Your task to perform on an android device: delete browsing data in the chrome app Image 0: 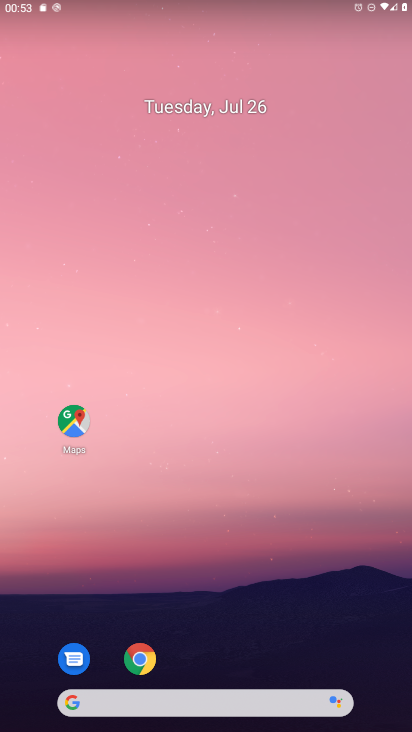
Step 0: drag from (292, 601) to (310, 259)
Your task to perform on an android device: delete browsing data in the chrome app Image 1: 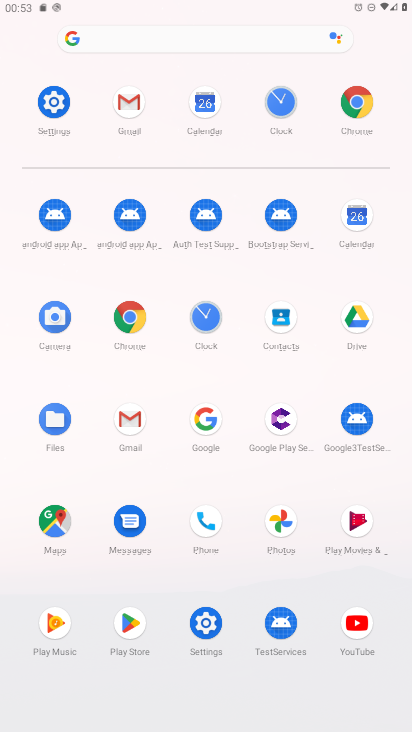
Step 1: click (134, 316)
Your task to perform on an android device: delete browsing data in the chrome app Image 2: 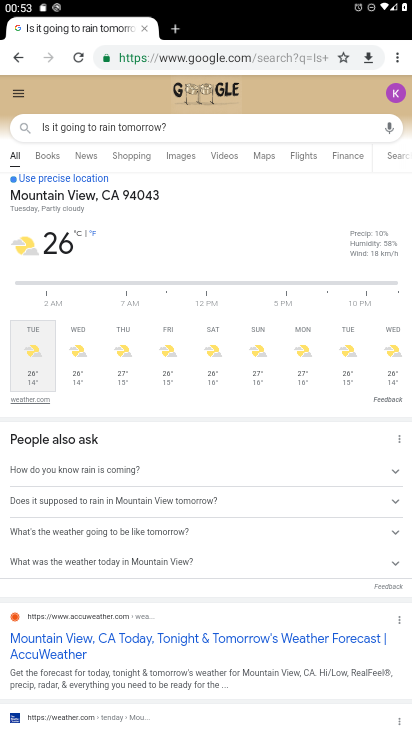
Step 2: drag from (396, 43) to (259, 392)
Your task to perform on an android device: delete browsing data in the chrome app Image 3: 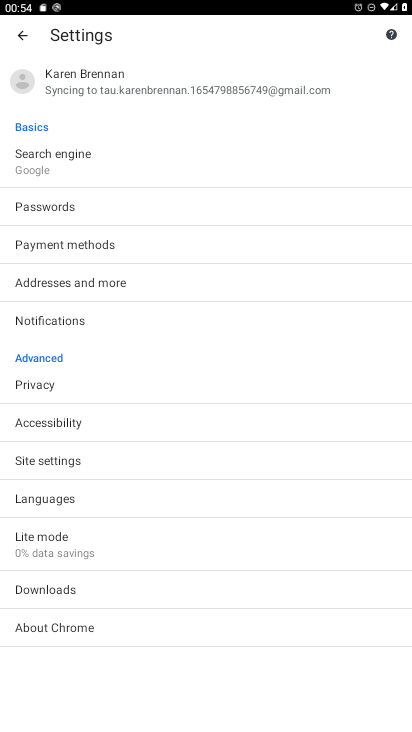
Step 3: click (34, 374)
Your task to perform on an android device: delete browsing data in the chrome app Image 4: 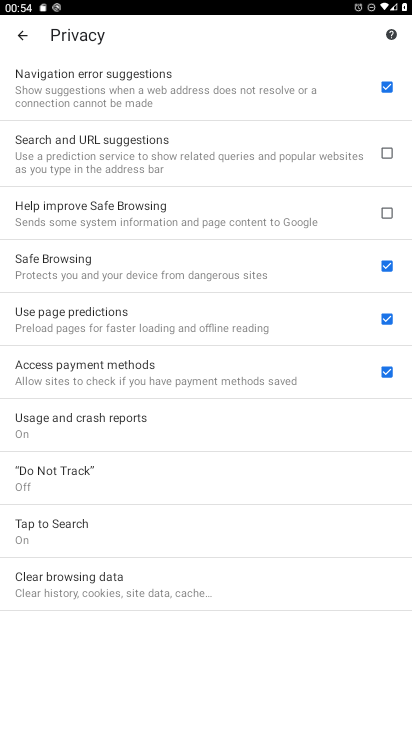
Step 4: click (127, 575)
Your task to perform on an android device: delete browsing data in the chrome app Image 5: 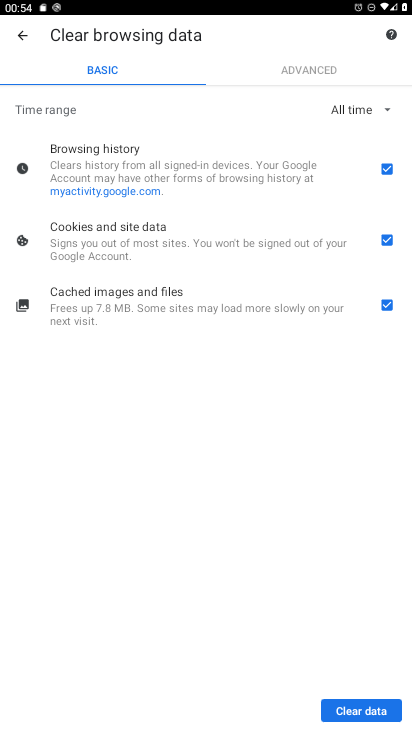
Step 5: click (347, 703)
Your task to perform on an android device: delete browsing data in the chrome app Image 6: 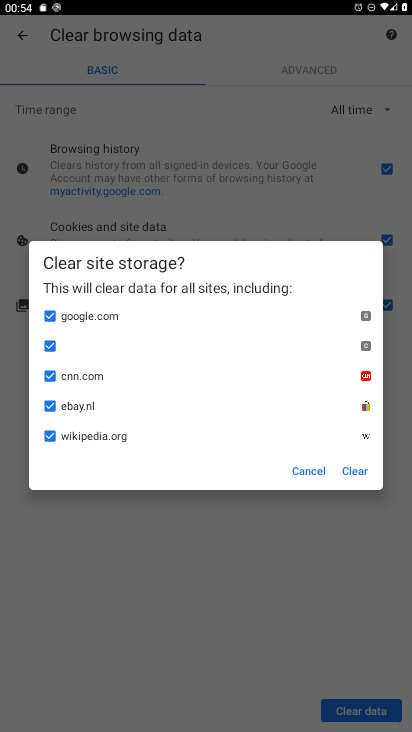
Step 6: click (347, 465)
Your task to perform on an android device: delete browsing data in the chrome app Image 7: 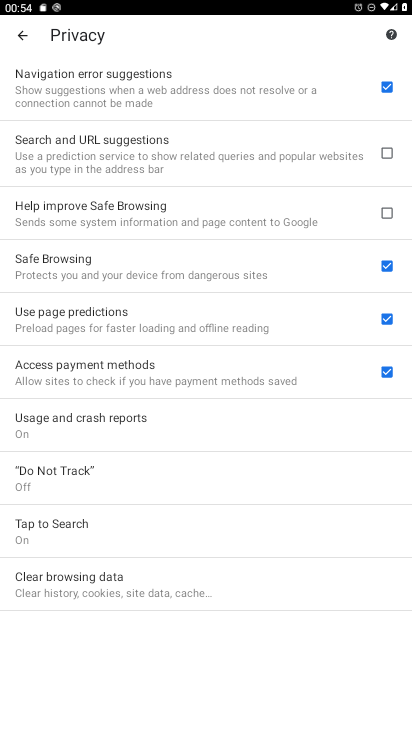
Step 7: task complete